Your task to perform on an android device: Show me the alarms in the clock app Image 0: 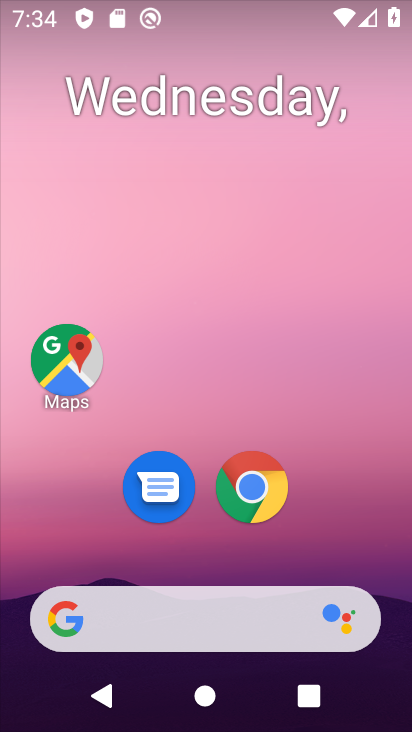
Step 0: drag from (342, 574) to (296, 0)
Your task to perform on an android device: Show me the alarms in the clock app Image 1: 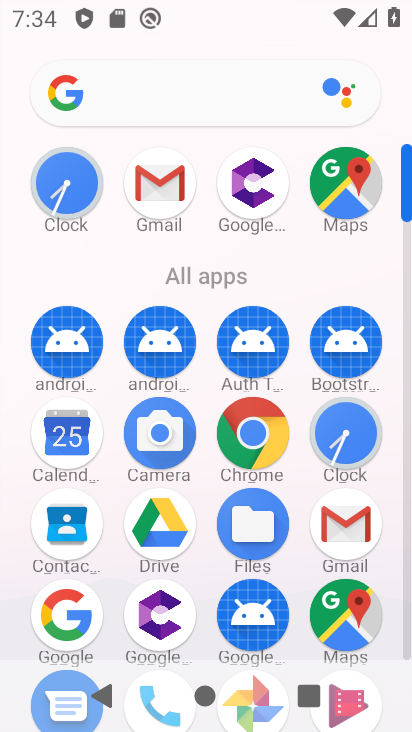
Step 1: click (357, 437)
Your task to perform on an android device: Show me the alarms in the clock app Image 2: 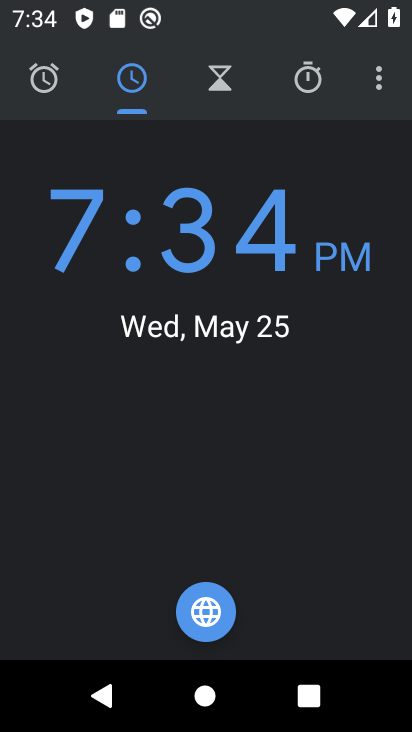
Step 2: click (42, 89)
Your task to perform on an android device: Show me the alarms in the clock app Image 3: 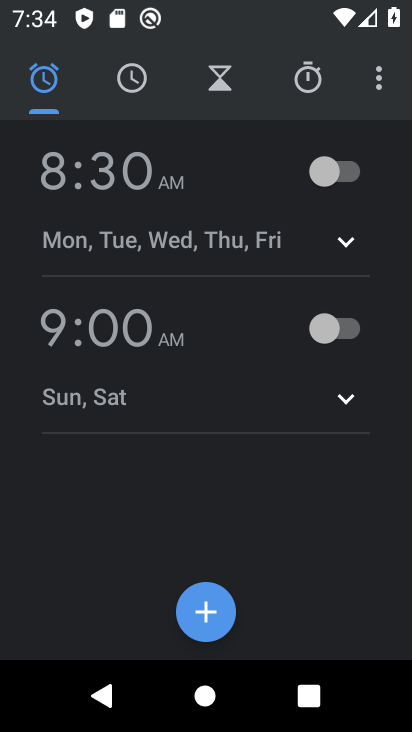
Step 3: task complete